Your task to perform on an android device: Open Amazon Image 0: 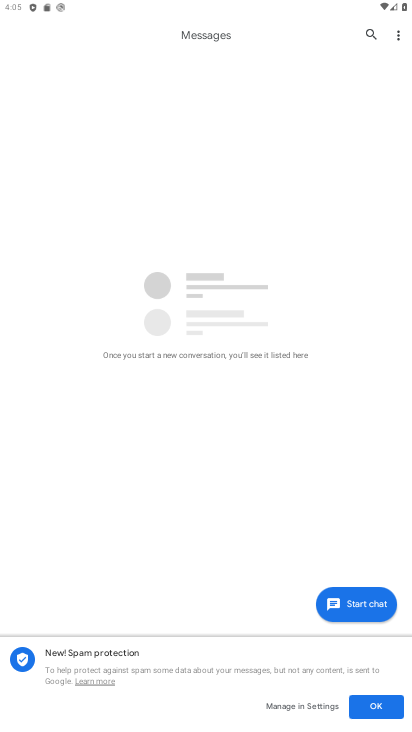
Step 0: press home button
Your task to perform on an android device: Open Amazon Image 1: 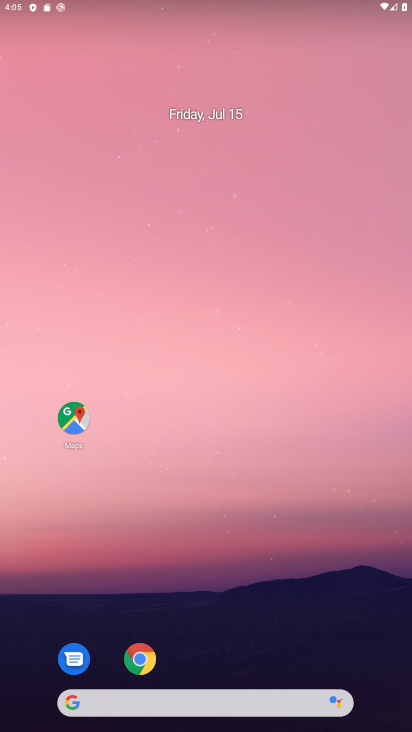
Step 1: drag from (271, 687) to (381, 26)
Your task to perform on an android device: Open Amazon Image 2: 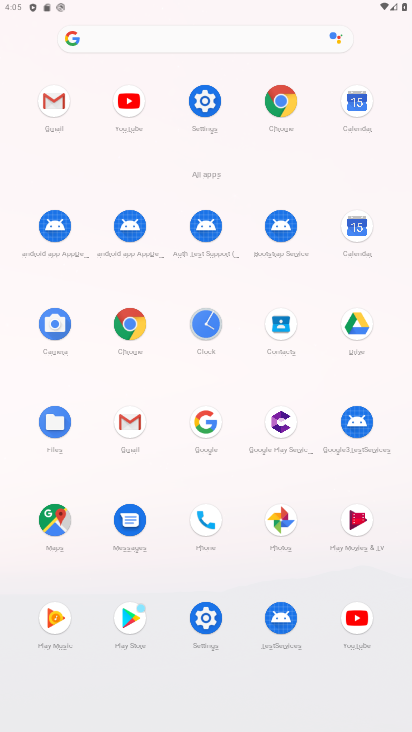
Step 2: click (135, 319)
Your task to perform on an android device: Open Amazon Image 3: 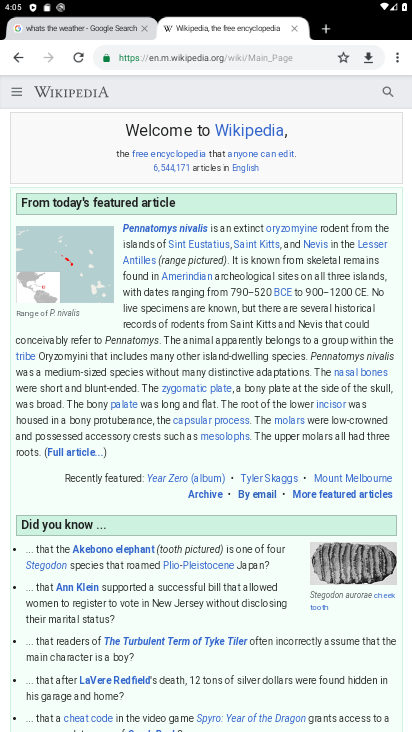
Step 3: drag from (394, 53) to (298, 58)
Your task to perform on an android device: Open Amazon Image 4: 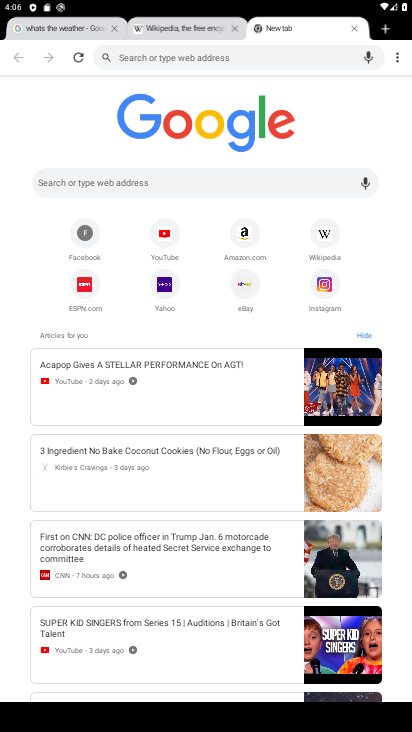
Step 4: click (247, 230)
Your task to perform on an android device: Open Amazon Image 5: 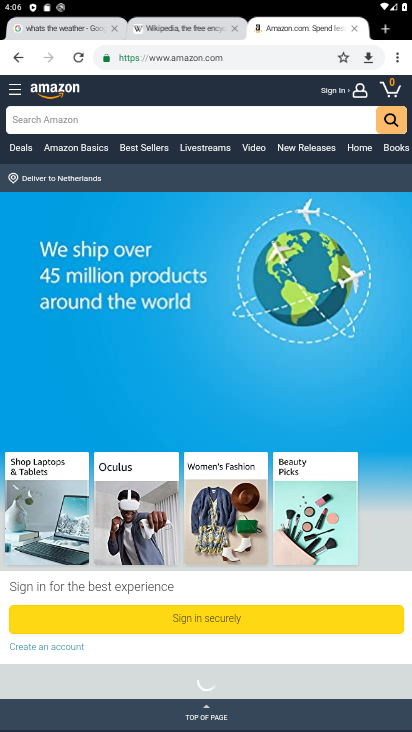
Step 5: task complete